Your task to perform on an android device: turn vacation reply on in the gmail app Image 0: 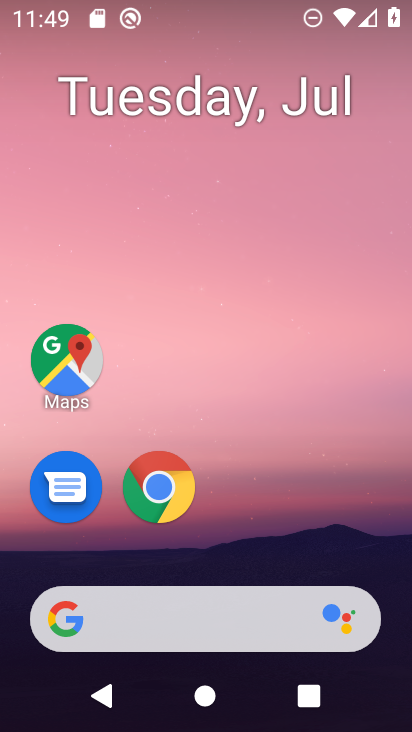
Step 0: drag from (333, 551) to (288, 180)
Your task to perform on an android device: turn vacation reply on in the gmail app Image 1: 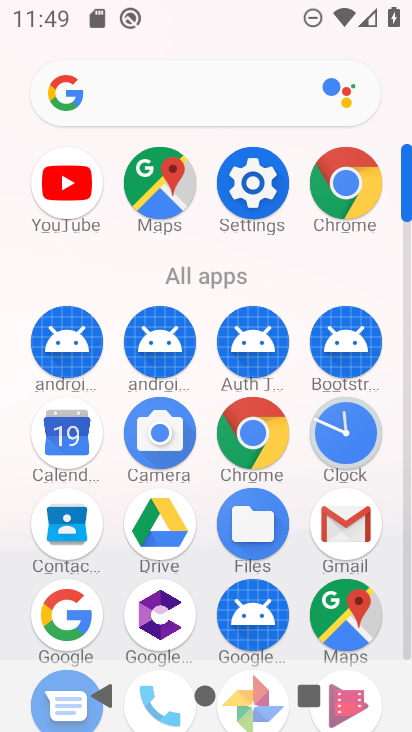
Step 1: click (344, 504)
Your task to perform on an android device: turn vacation reply on in the gmail app Image 2: 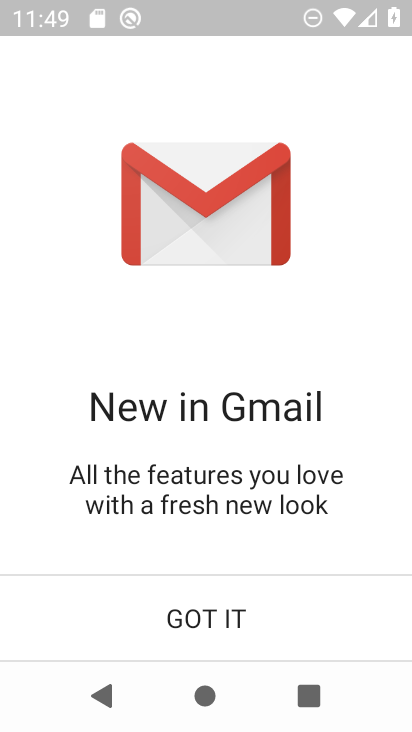
Step 2: click (219, 625)
Your task to perform on an android device: turn vacation reply on in the gmail app Image 3: 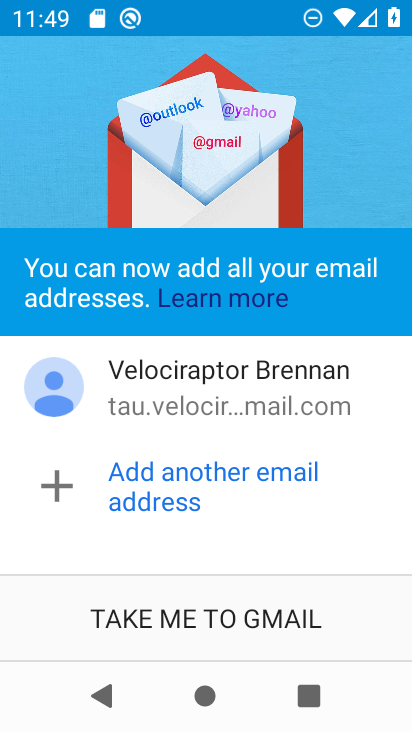
Step 3: click (222, 625)
Your task to perform on an android device: turn vacation reply on in the gmail app Image 4: 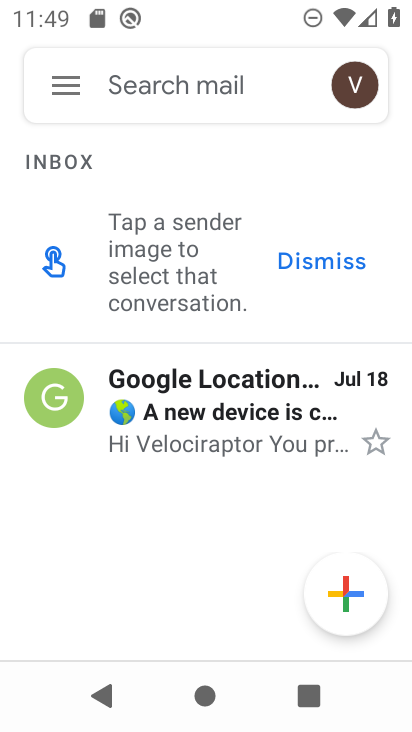
Step 4: click (68, 89)
Your task to perform on an android device: turn vacation reply on in the gmail app Image 5: 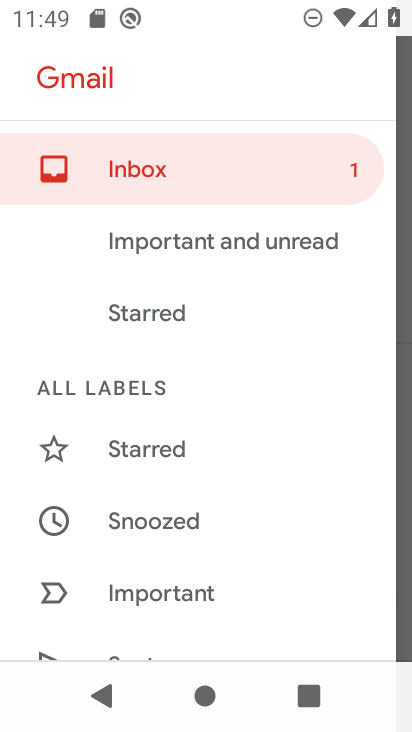
Step 5: drag from (230, 544) to (201, 256)
Your task to perform on an android device: turn vacation reply on in the gmail app Image 6: 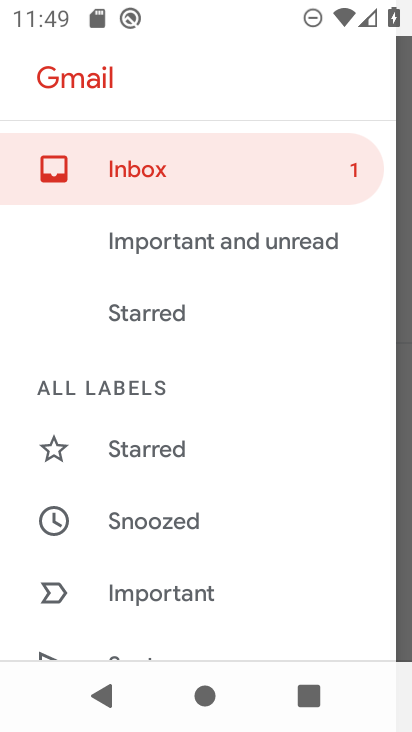
Step 6: drag from (262, 637) to (217, 117)
Your task to perform on an android device: turn vacation reply on in the gmail app Image 7: 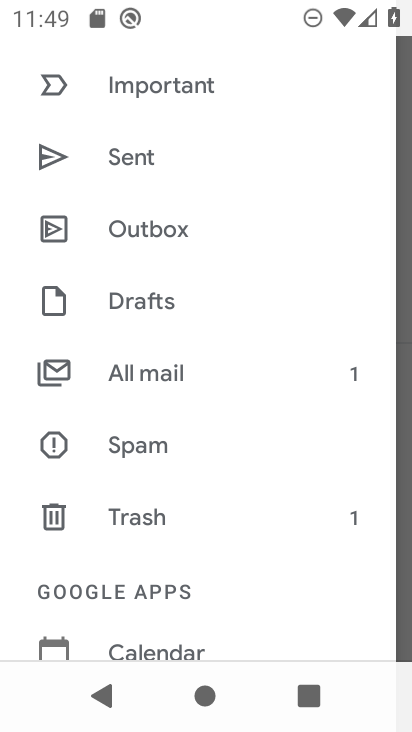
Step 7: drag from (286, 598) to (254, 248)
Your task to perform on an android device: turn vacation reply on in the gmail app Image 8: 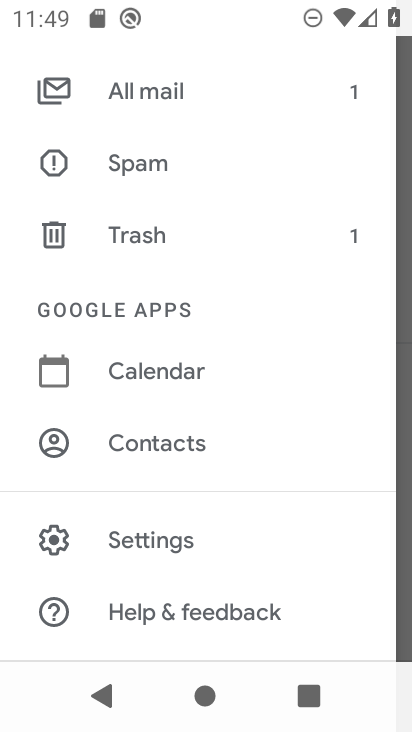
Step 8: click (242, 535)
Your task to perform on an android device: turn vacation reply on in the gmail app Image 9: 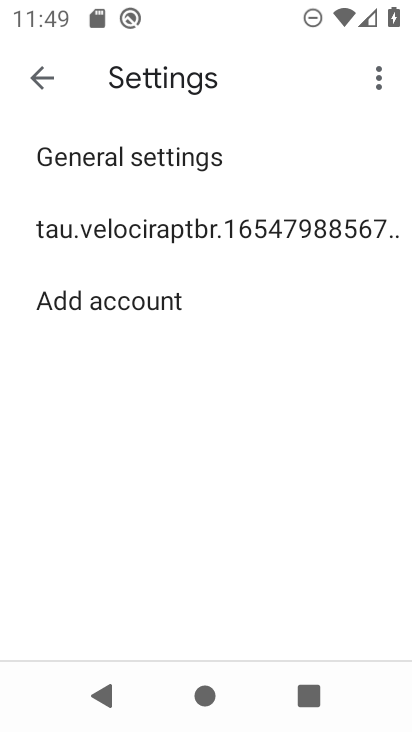
Step 9: click (245, 228)
Your task to perform on an android device: turn vacation reply on in the gmail app Image 10: 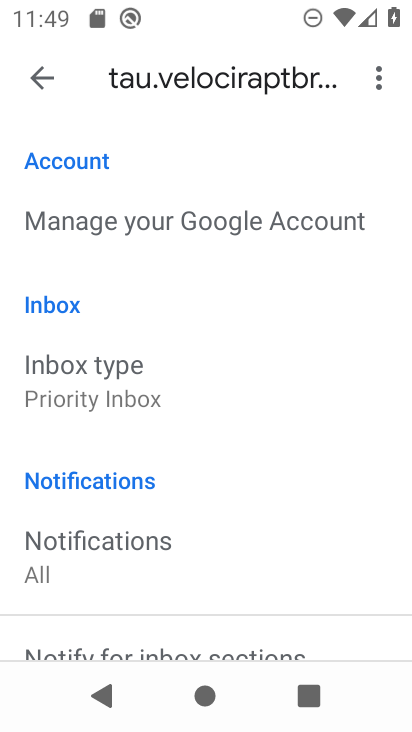
Step 10: drag from (232, 552) to (197, 131)
Your task to perform on an android device: turn vacation reply on in the gmail app Image 11: 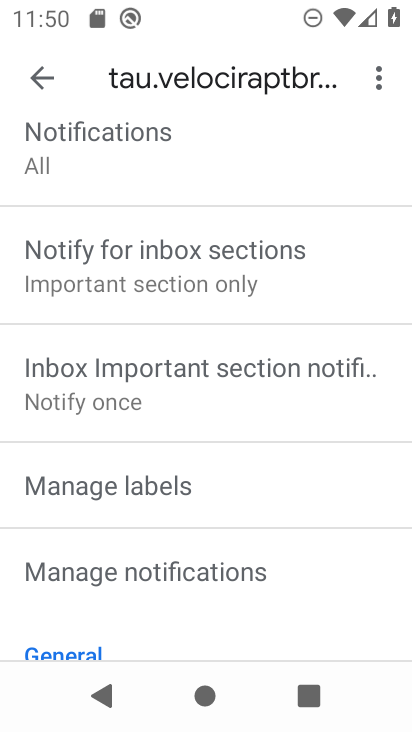
Step 11: drag from (264, 586) to (203, 95)
Your task to perform on an android device: turn vacation reply on in the gmail app Image 12: 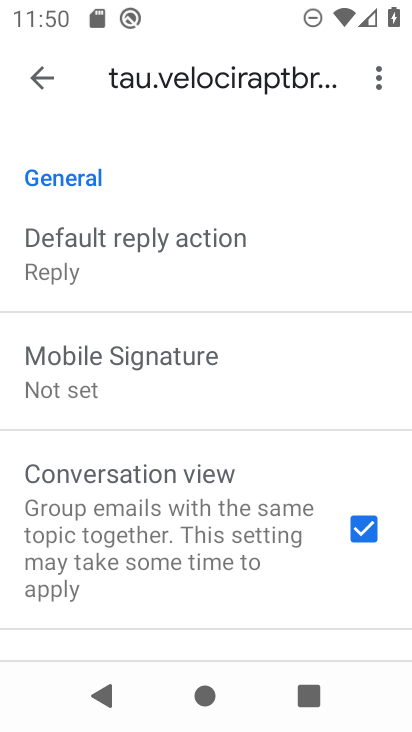
Step 12: drag from (282, 615) to (211, 176)
Your task to perform on an android device: turn vacation reply on in the gmail app Image 13: 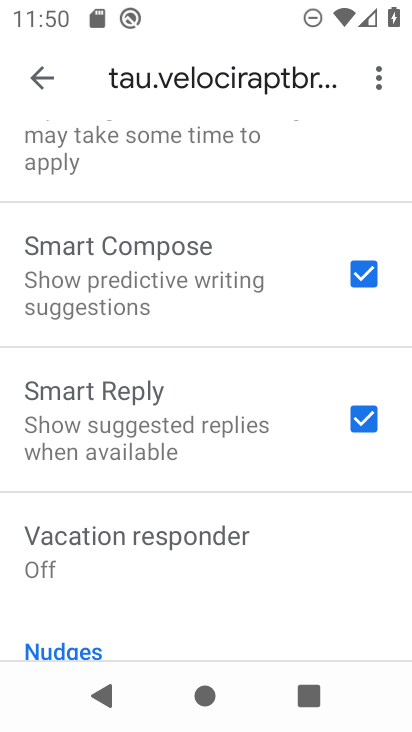
Step 13: click (236, 531)
Your task to perform on an android device: turn vacation reply on in the gmail app Image 14: 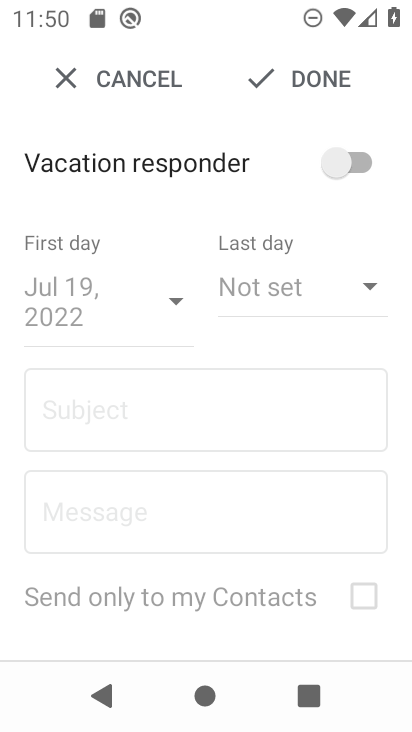
Step 14: click (351, 166)
Your task to perform on an android device: turn vacation reply on in the gmail app Image 15: 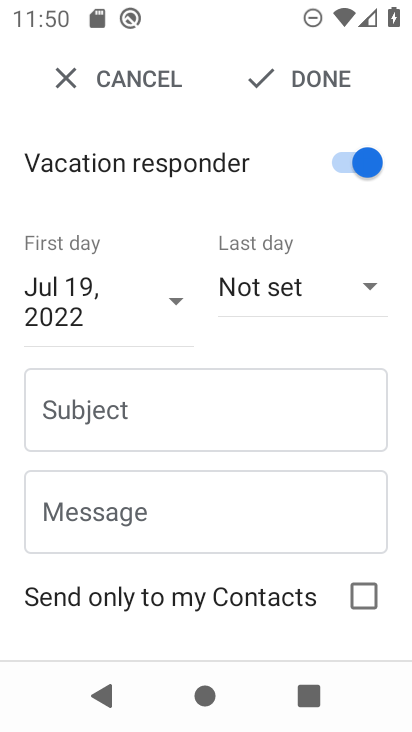
Step 15: click (274, 421)
Your task to perform on an android device: turn vacation reply on in the gmail app Image 16: 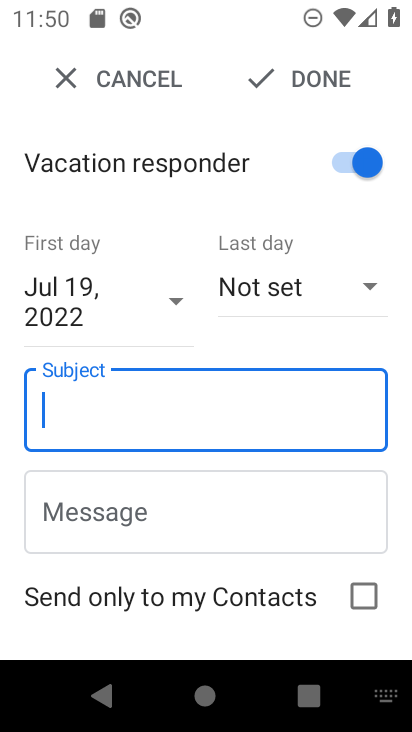
Step 16: type "hbhb"
Your task to perform on an android device: turn vacation reply on in the gmail app Image 17: 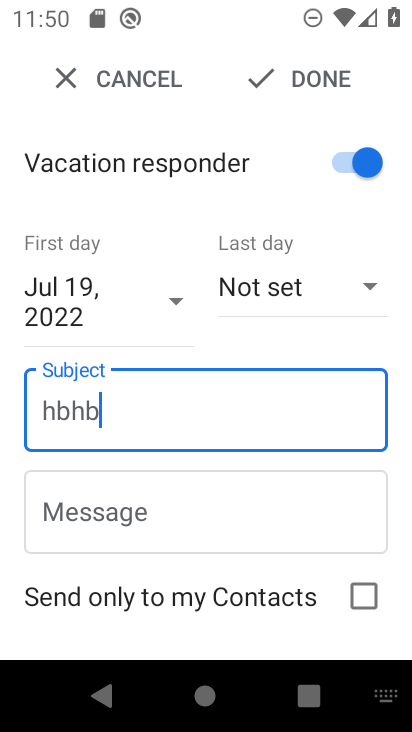
Step 17: click (327, 83)
Your task to perform on an android device: turn vacation reply on in the gmail app Image 18: 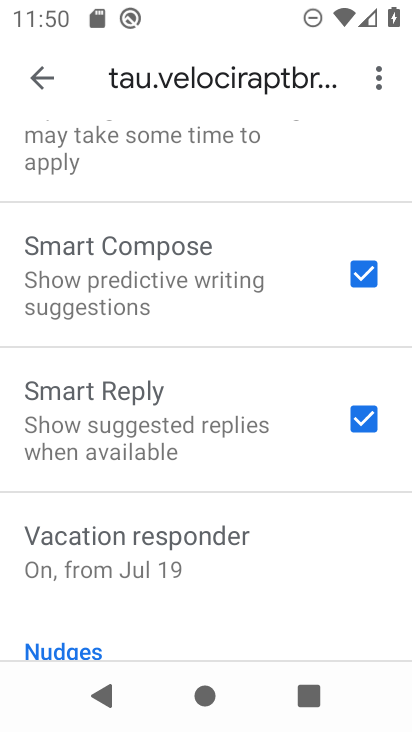
Step 18: task complete